Your task to perform on an android device: Open Google Image 0: 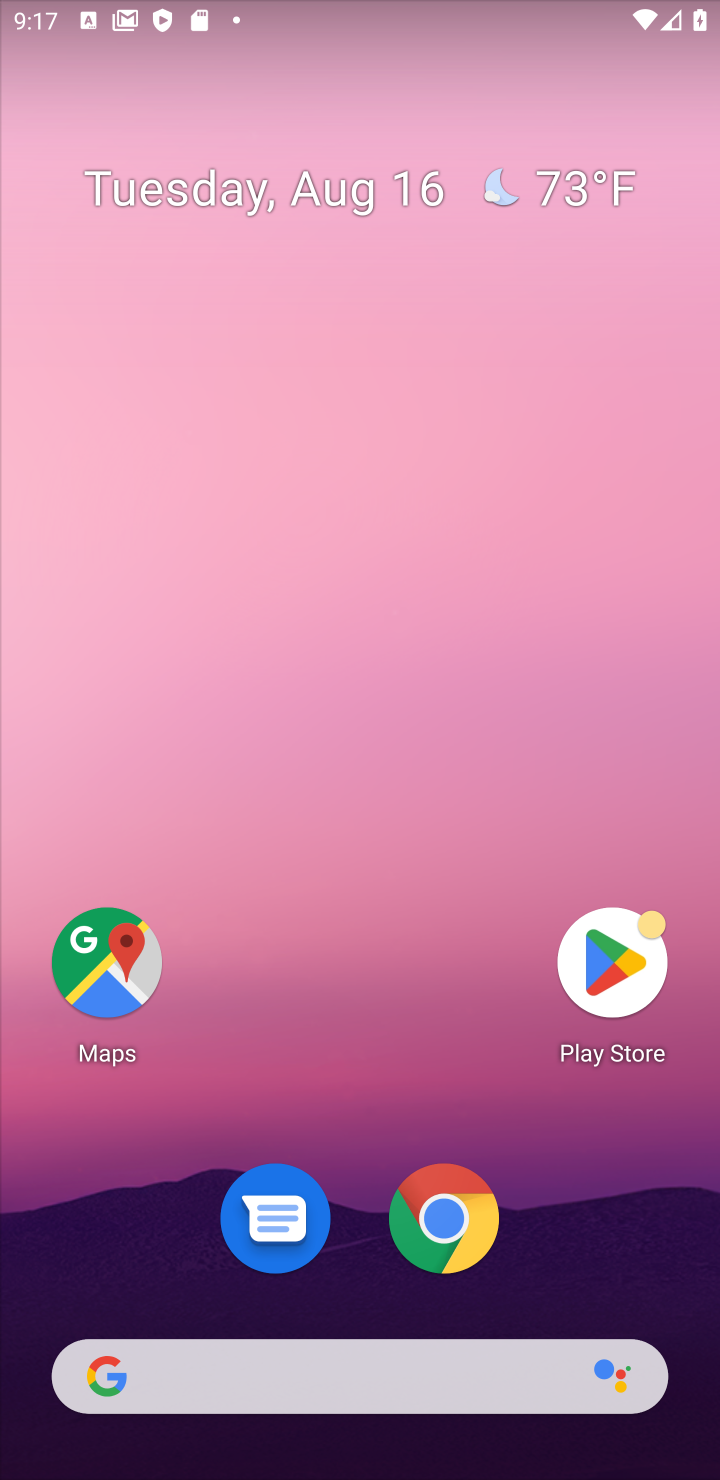
Step 0: click (307, 1387)
Your task to perform on an android device: Open Google Image 1: 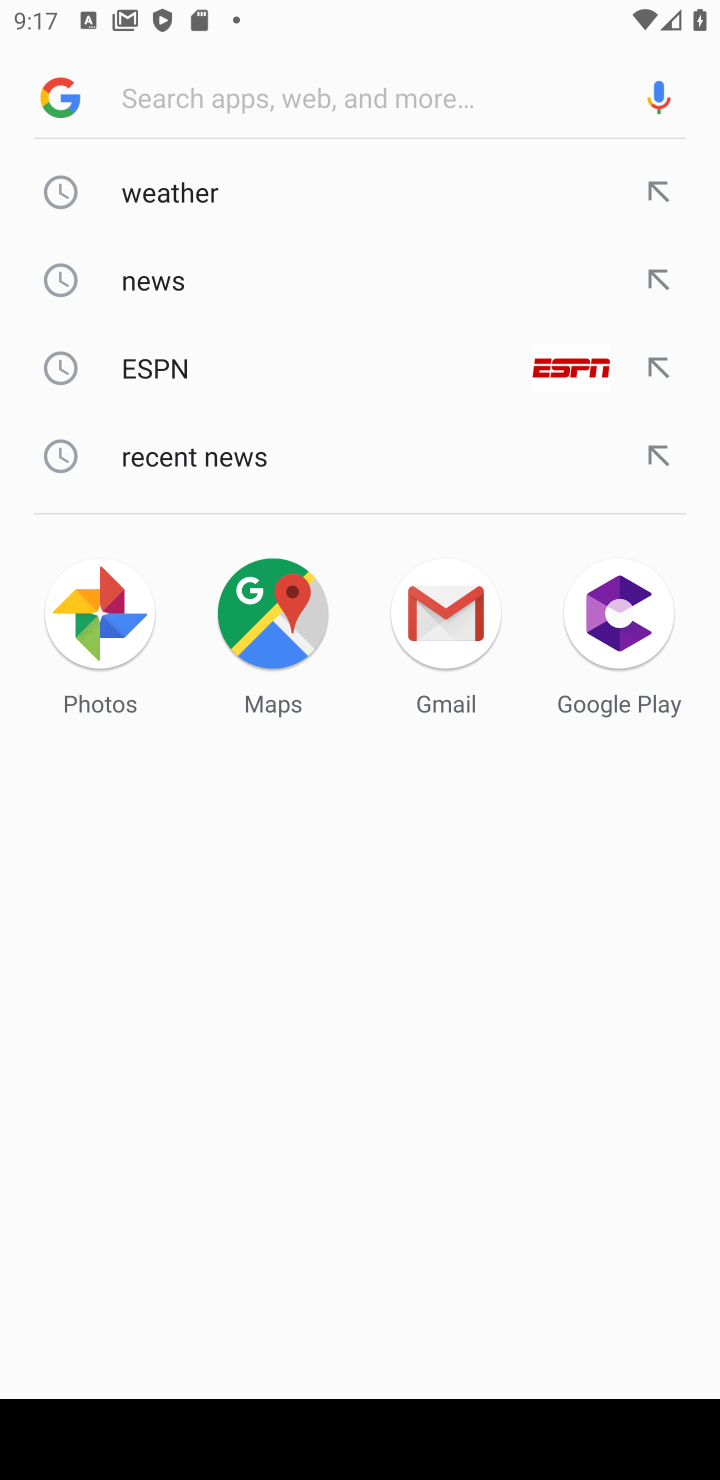
Step 1: task complete